Your task to perform on an android device: Go to battery settings Image 0: 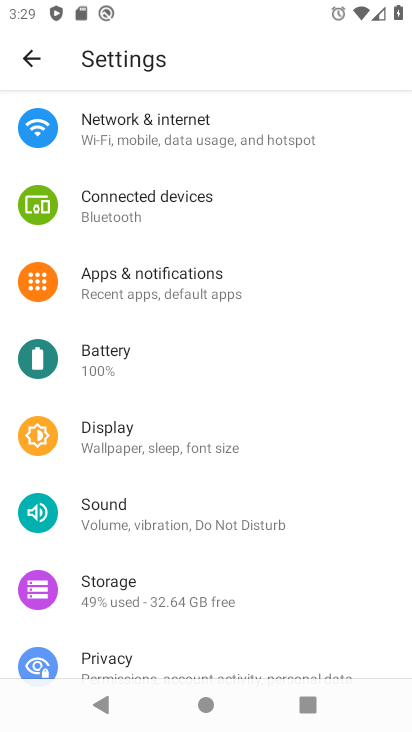
Step 0: click (108, 352)
Your task to perform on an android device: Go to battery settings Image 1: 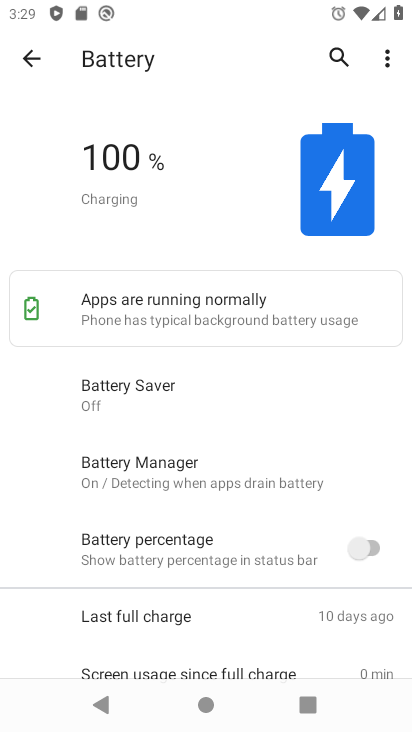
Step 1: task complete